Your task to perform on an android device: Open Youtube and go to "Your channel" Image 0: 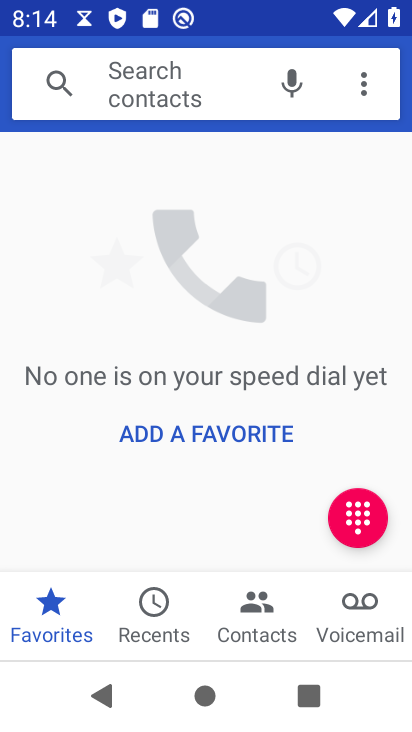
Step 0: press home button
Your task to perform on an android device: Open Youtube and go to "Your channel" Image 1: 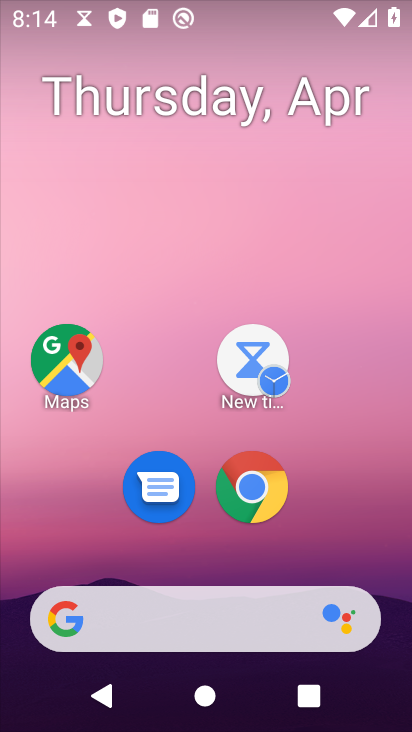
Step 1: drag from (351, 456) to (362, 68)
Your task to perform on an android device: Open Youtube and go to "Your channel" Image 2: 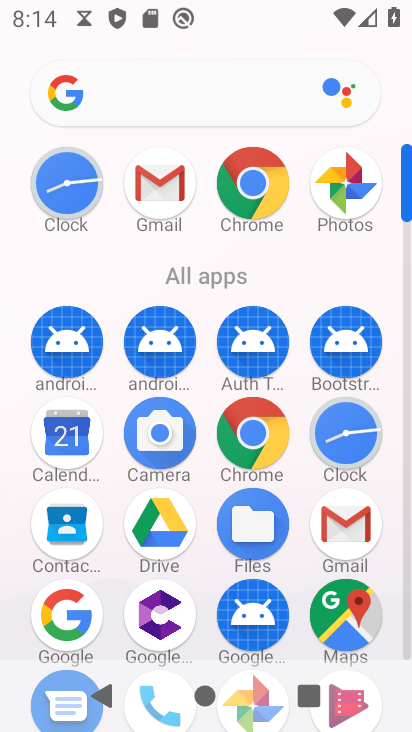
Step 2: drag from (406, 211) to (336, 109)
Your task to perform on an android device: Open Youtube and go to "Your channel" Image 3: 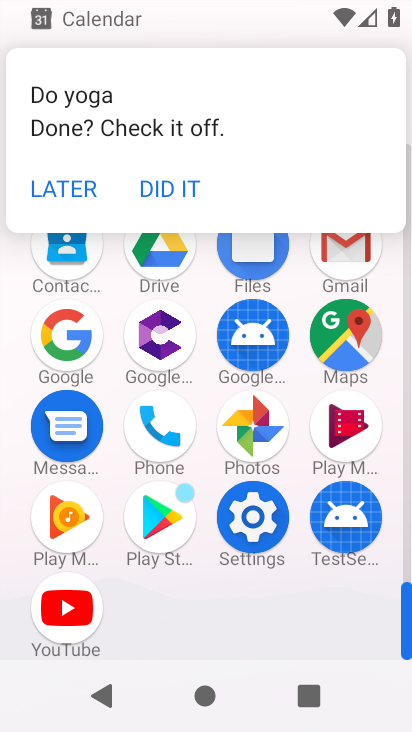
Step 3: click (73, 599)
Your task to perform on an android device: Open Youtube and go to "Your channel" Image 4: 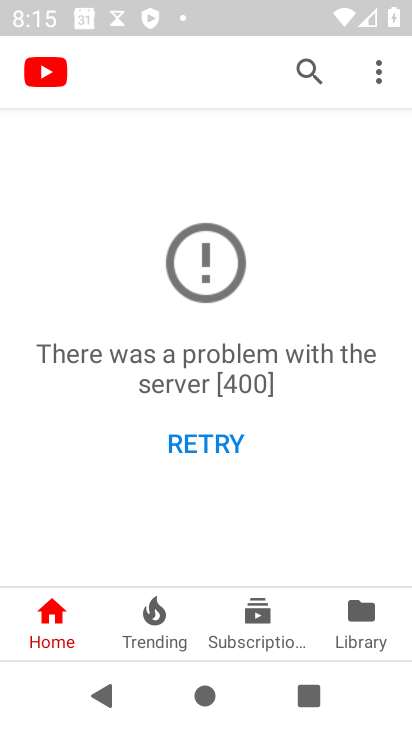
Step 4: click (375, 77)
Your task to perform on an android device: Open Youtube and go to "Your channel" Image 5: 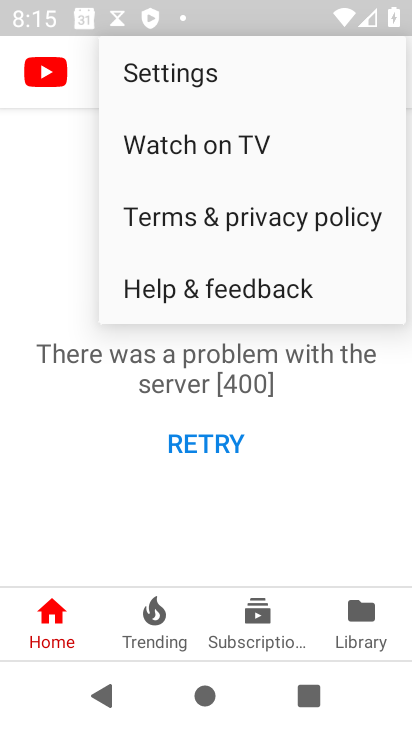
Step 5: click (375, 617)
Your task to perform on an android device: Open Youtube and go to "Your channel" Image 6: 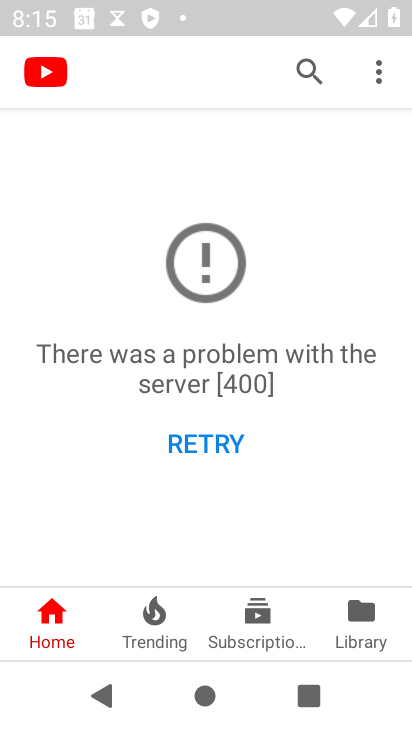
Step 6: click (367, 619)
Your task to perform on an android device: Open Youtube and go to "Your channel" Image 7: 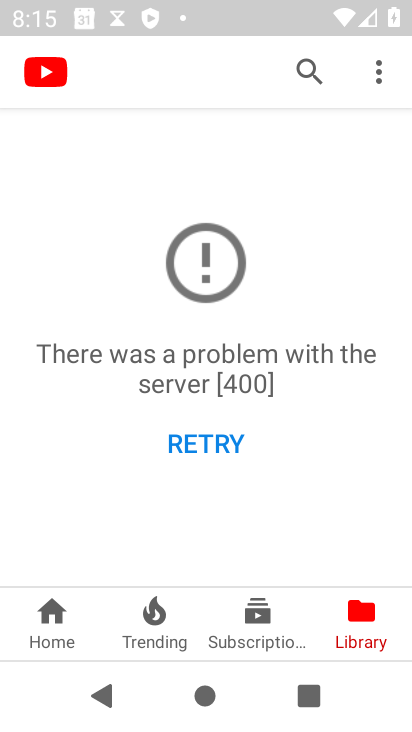
Step 7: click (215, 440)
Your task to perform on an android device: Open Youtube and go to "Your channel" Image 8: 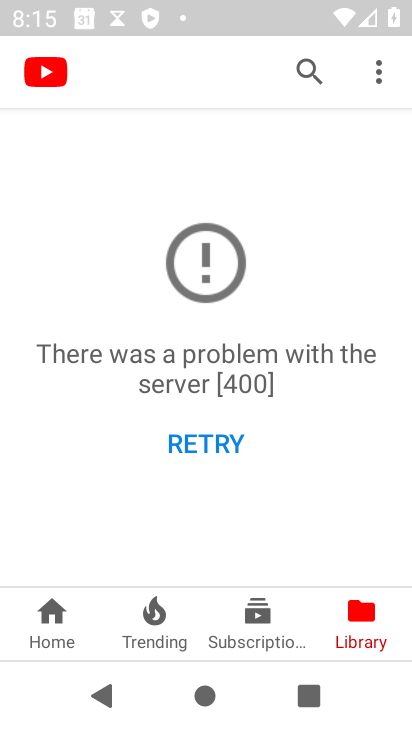
Step 8: click (196, 433)
Your task to perform on an android device: Open Youtube and go to "Your channel" Image 9: 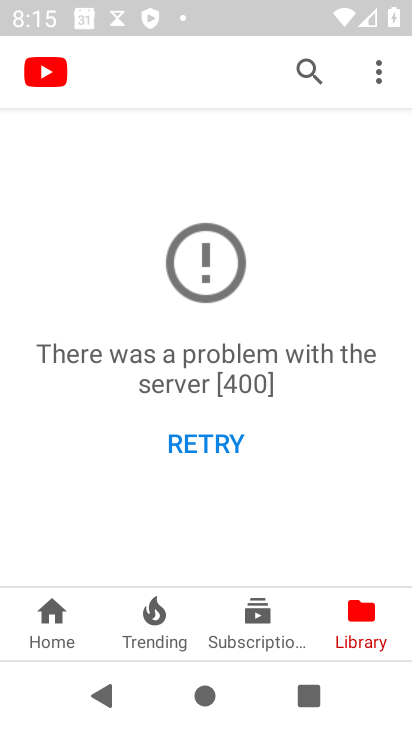
Step 9: click (197, 441)
Your task to perform on an android device: Open Youtube and go to "Your channel" Image 10: 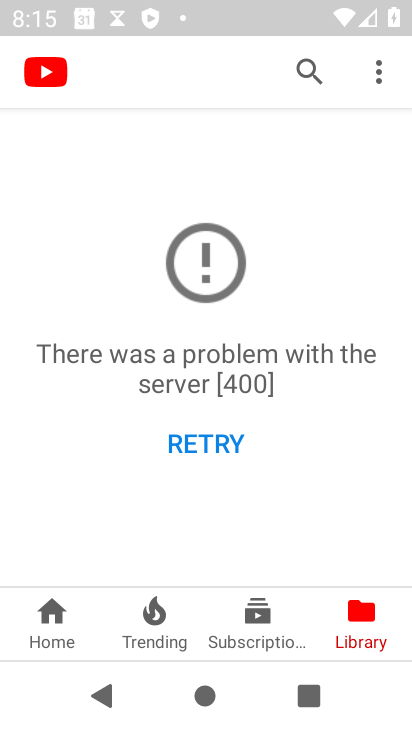
Step 10: task complete